Your task to perform on an android device: all mails in gmail Image 0: 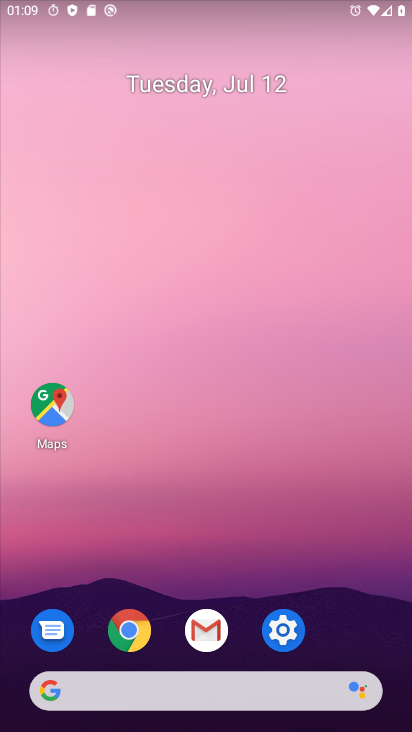
Step 0: click (215, 611)
Your task to perform on an android device: all mails in gmail Image 1: 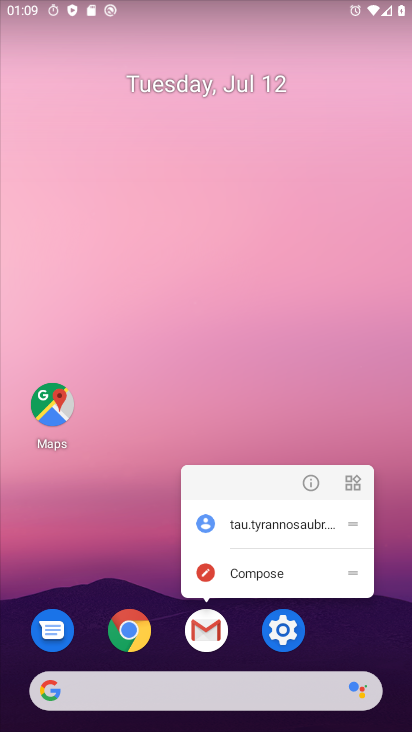
Step 1: click (209, 615)
Your task to perform on an android device: all mails in gmail Image 2: 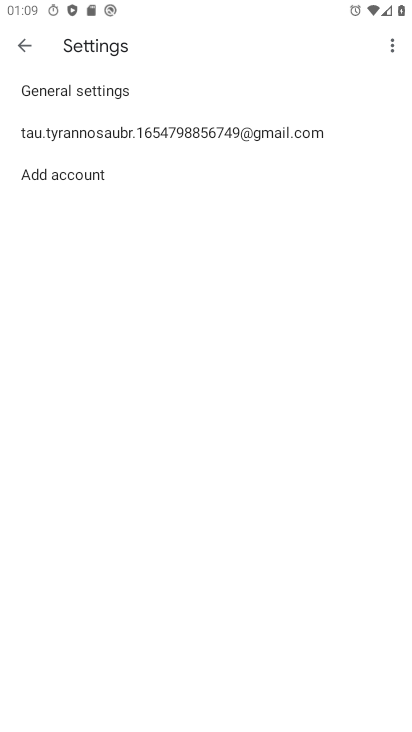
Step 2: click (114, 136)
Your task to perform on an android device: all mails in gmail Image 3: 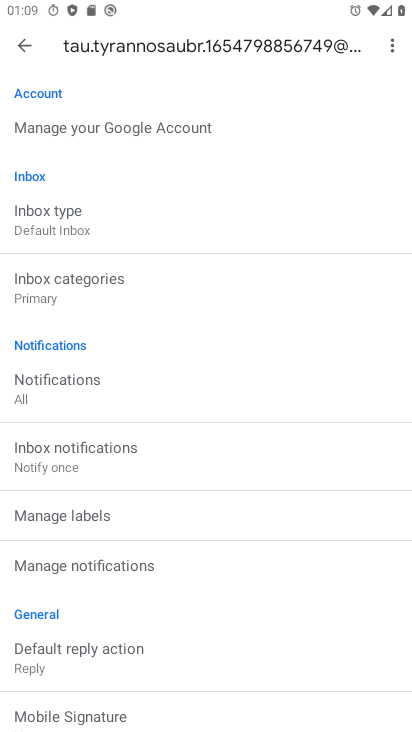
Step 3: click (22, 53)
Your task to perform on an android device: all mails in gmail Image 4: 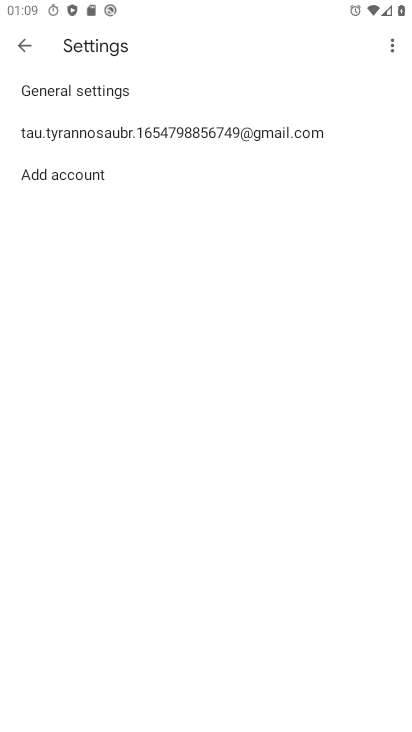
Step 4: click (23, 49)
Your task to perform on an android device: all mails in gmail Image 5: 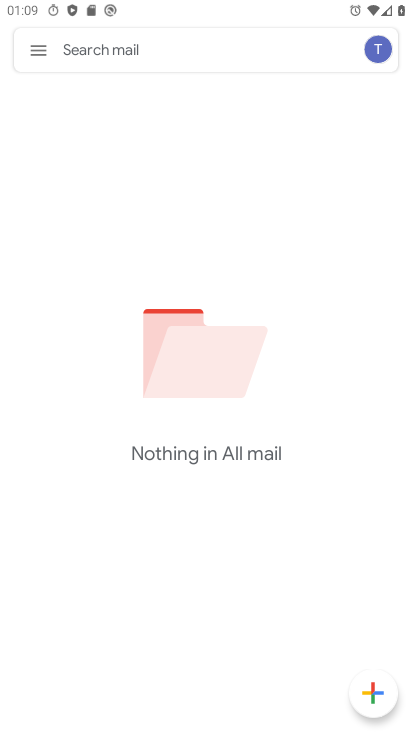
Step 5: click (33, 48)
Your task to perform on an android device: all mails in gmail Image 6: 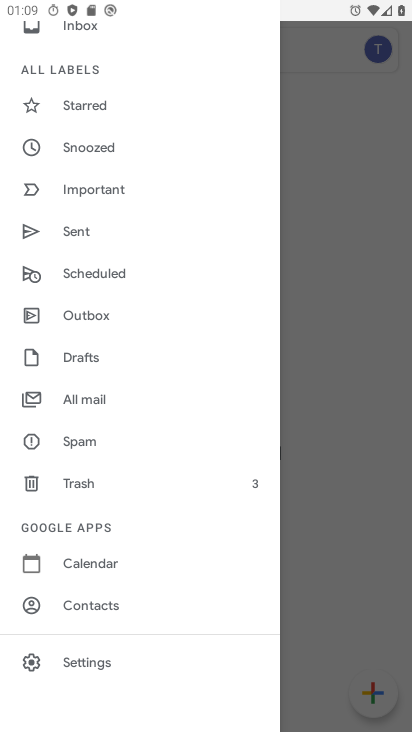
Step 6: click (92, 397)
Your task to perform on an android device: all mails in gmail Image 7: 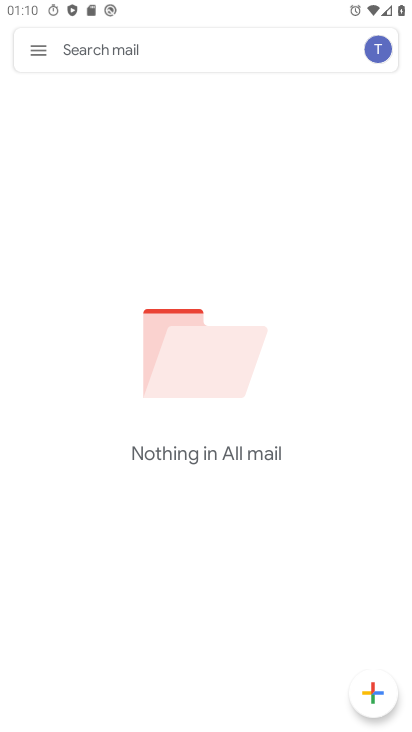
Step 7: task complete